Your task to perform on an android device: toggle translation in the chrome app Image 0: 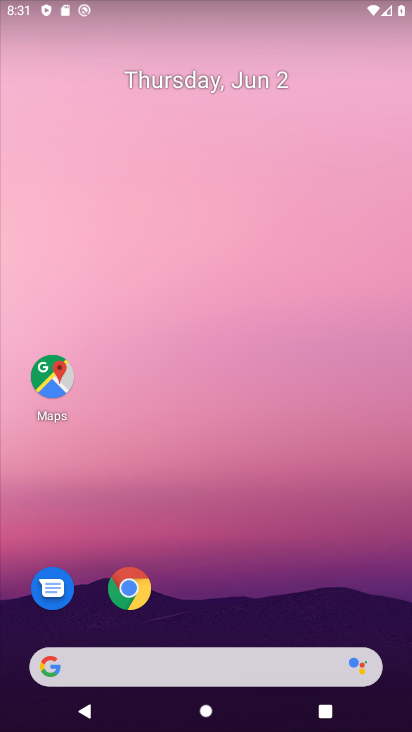
Step 0: click (144, 600)
Your task to perform on an android device: toggle translation in the chrome app Image 1: 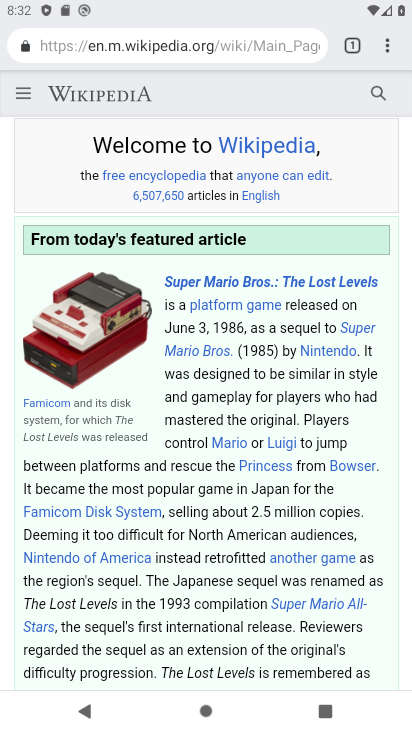
Step 1: click (391, 52)
Your task to perform on an android device: toggle translation in the chrome app Image 2: 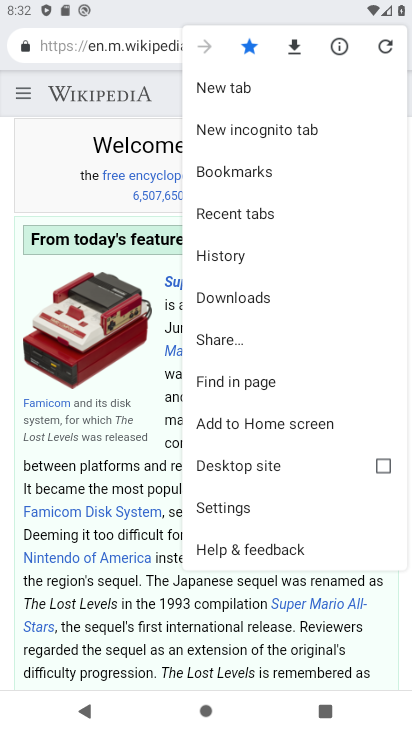
Step 2: drag from (319, 534) to (299, 275)
Your task to perform on an android device: toggle translation in the chrome app Image 3: 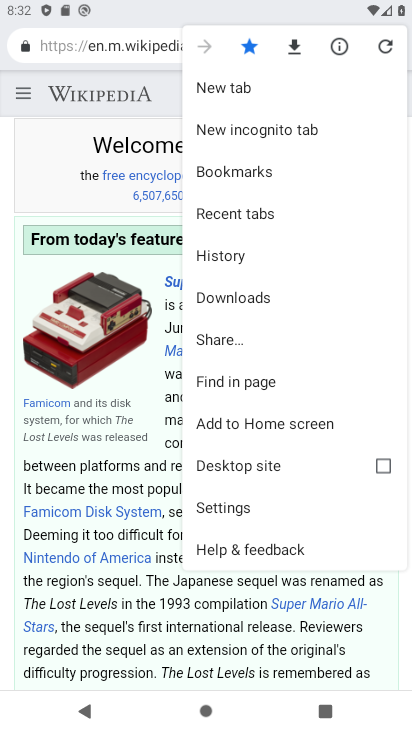
Step 3: click (258, 518)
Your task to perform on an android device: toggle translation in the chrome app Image 4: 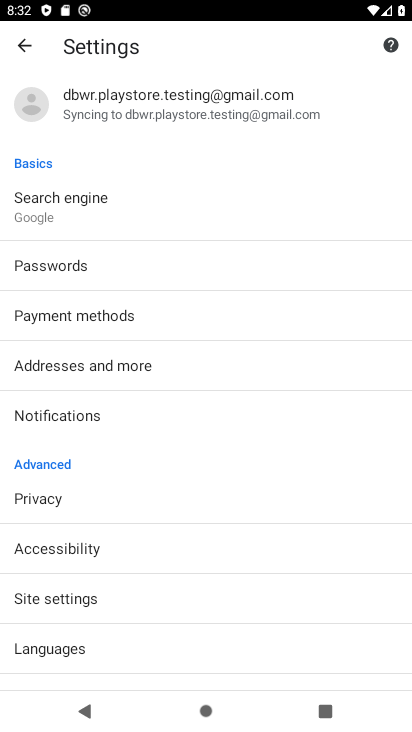
Step 4: click (66, 652)
Your task to perform on an android device: toggle translation in the chrome app Image 5: 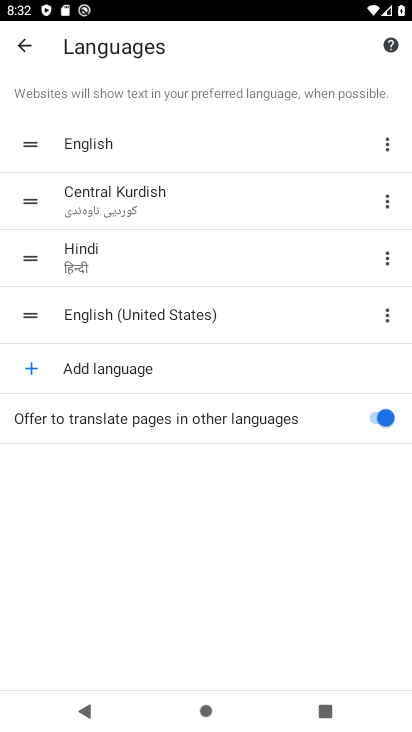
Step 5: click (385, 418)
Your task to perform on an android device: toggle translation in the chrome app Image 6: 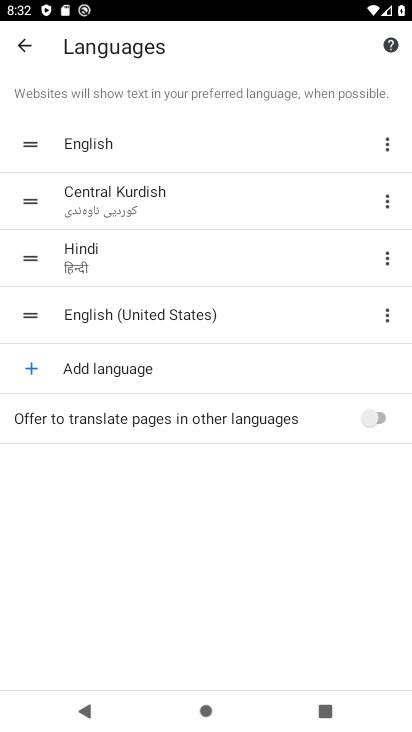
Step 6: task complete